Your task to perform on an android device: find photos in the google photos app Image 0: 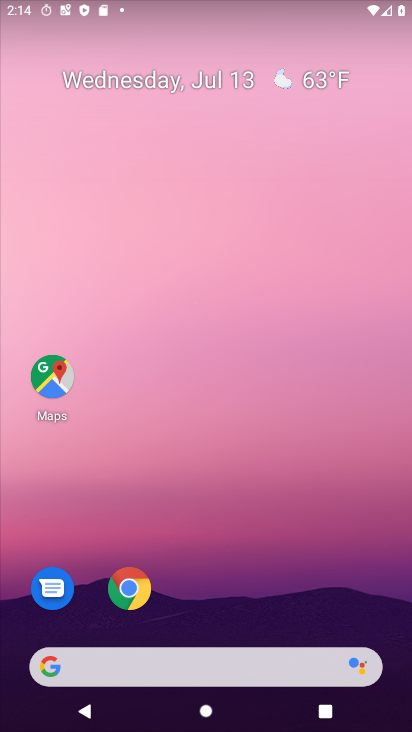
Step 0: drag from (213, 670) to (246, 62)
Your task to perform on an android device: find photos in the google photos app Image 1: 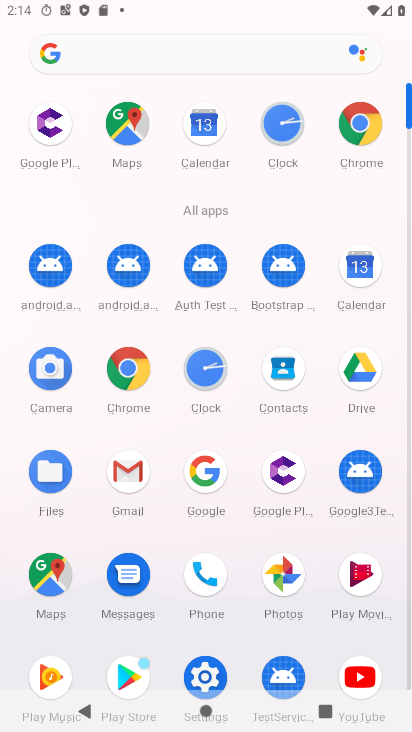
Step 1: click (284, 569)
Your task to perform on an android device: find photos in the google photos app Image 2: 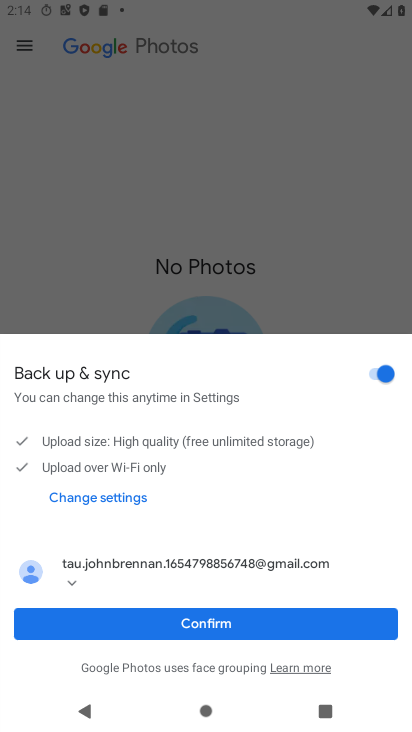
Step 2: click (195, 613)
Your task to perform on an android device: find photos in the google photos app Image 3: 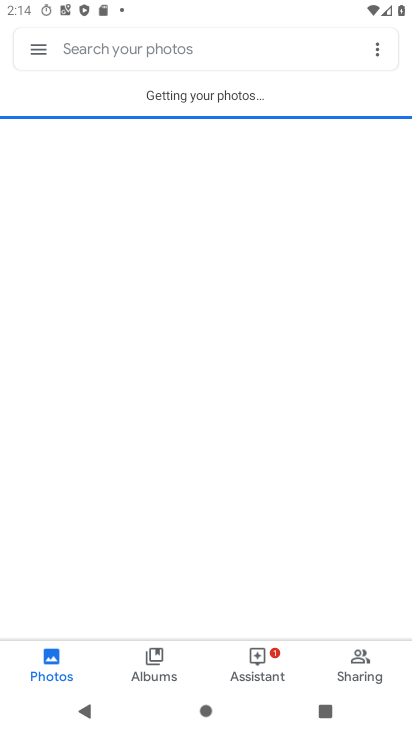
Step 3: task complete